Your task to perform on an android device: check battery use Image 0: 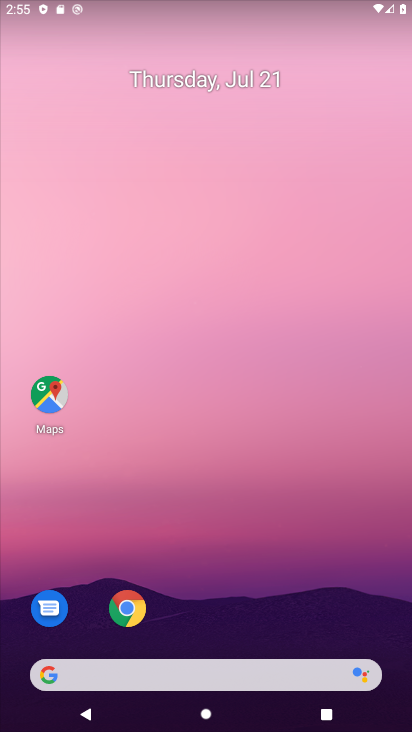
Step 0: drag from (271, 612) to (308, 93)
Your task to perform on an android device: check battery use Image 1: 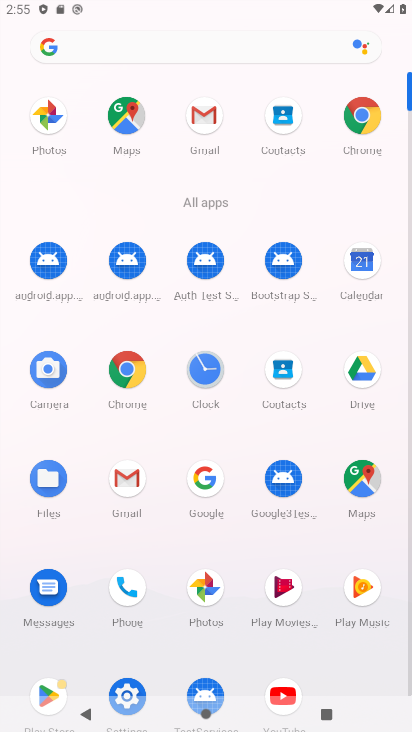
Step 1: click (124, 698)
Your task to perform on an android device: check battery use Image 2: 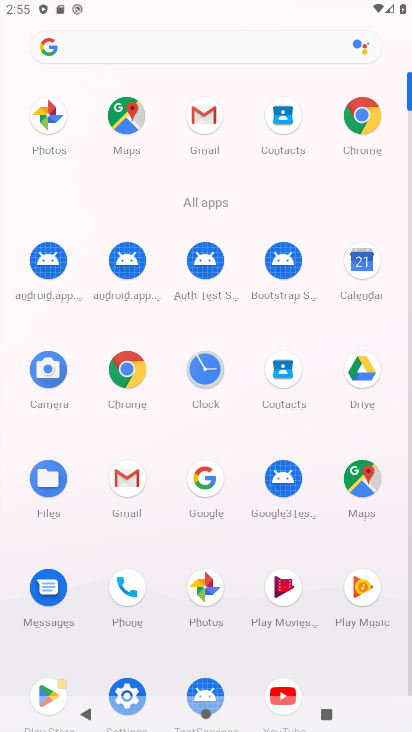
Step 2: click (127, 689)
Your task to perform on an android device: check battery use Image 3: 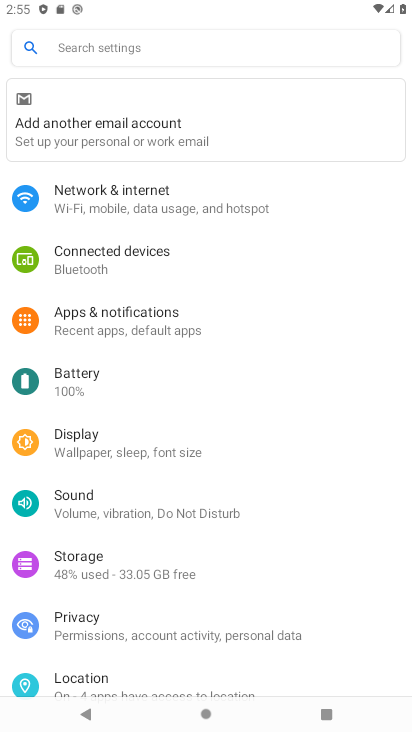
Step 3: click (77, 386)
Your task to perform on an android device: check battery use Image 4: 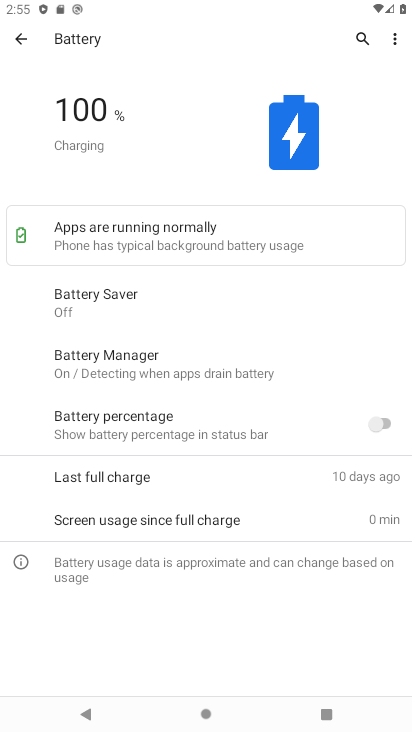
Step 4: click (394, 38)
Your task to perform on an android device: check battery use Image 5: 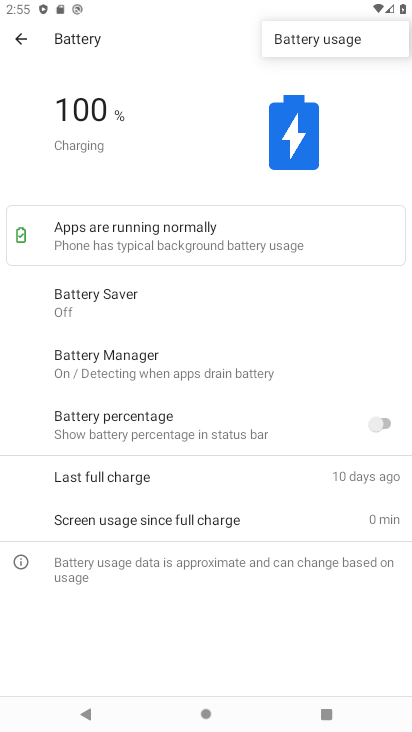
Step 5: click (356, 29)
Your task to perform on an android device: check battery use Image 6: 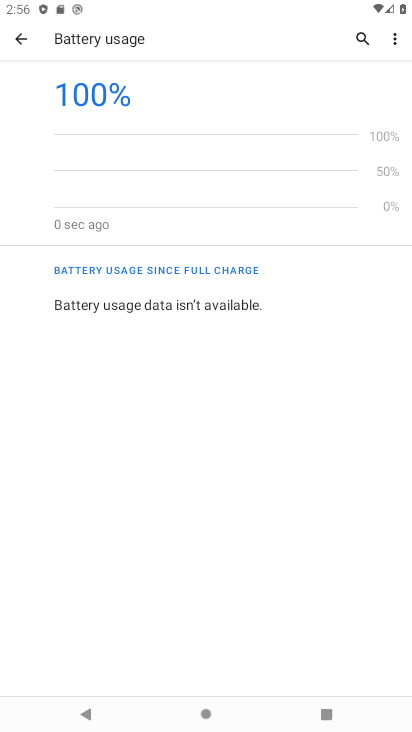
Step 6: task complete